Your task to perform on an android device: Open Chrome and go to settings Image 0: 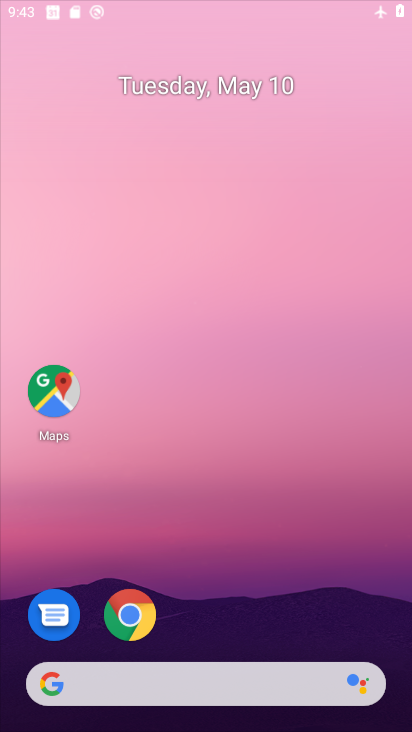
Step 0: drag from (195, 574) to (222, 216)
Your task to perform on an android device: Open Chrome and go to settings Image 1: 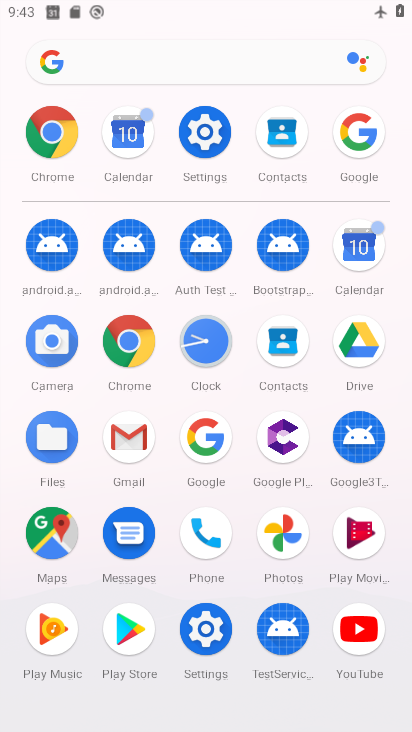
Step 1: drag from (167, 634) to (156, 379)
Your task to perform on an android device: Open Chrome and go to settings Image 2: 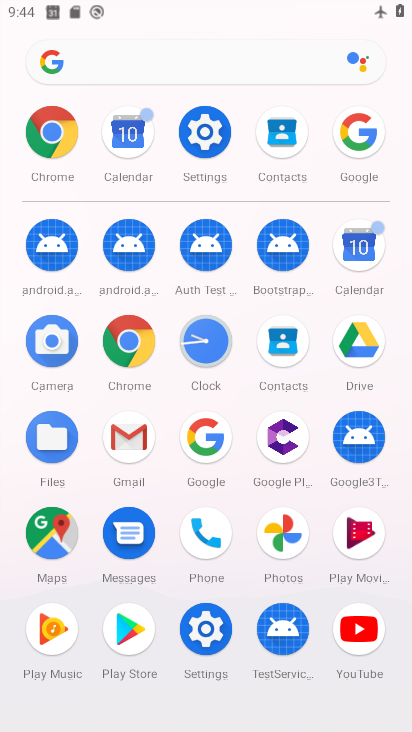
Step 2: click (125, 436)
Your task to perform on an android device: Open Chrome and go to settings Image 3: 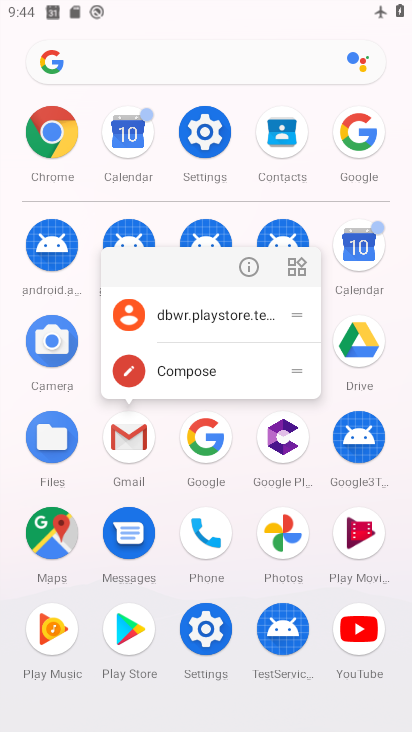
Step 3: click (45, 129)
Your task to perform on an android device: Open Chrome and go to settings Image 4: 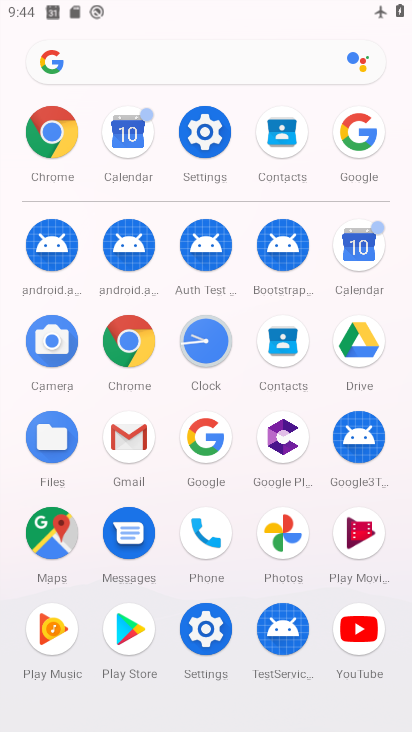
Step 4: click (200, 156)
Your task to perform on an android device: Open Chrome and go to settings Image 5: 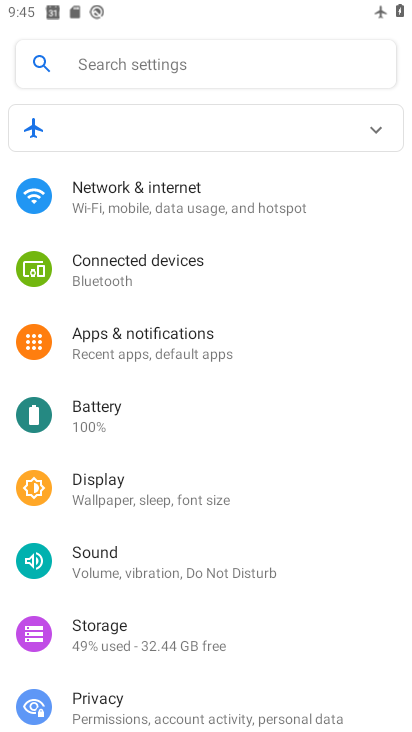
Step 5: drag from (192, 571) to (260, 216)
Your task to perform on an android device: Open Chrome and go to settings Image 6: 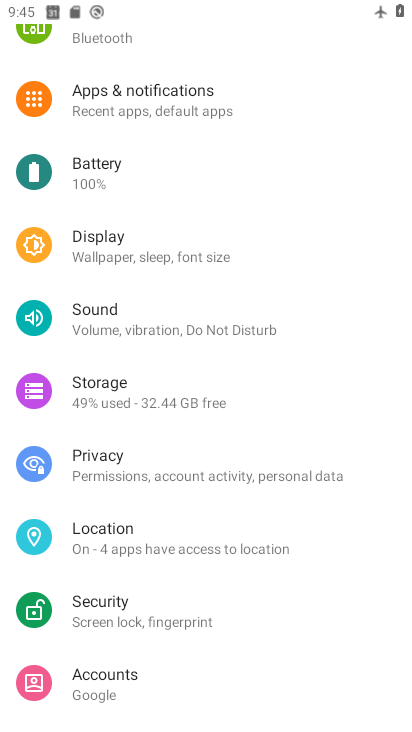
Step 6: press back button
Your task to perform on an android device: Open Chrome and go to settings Image 7: 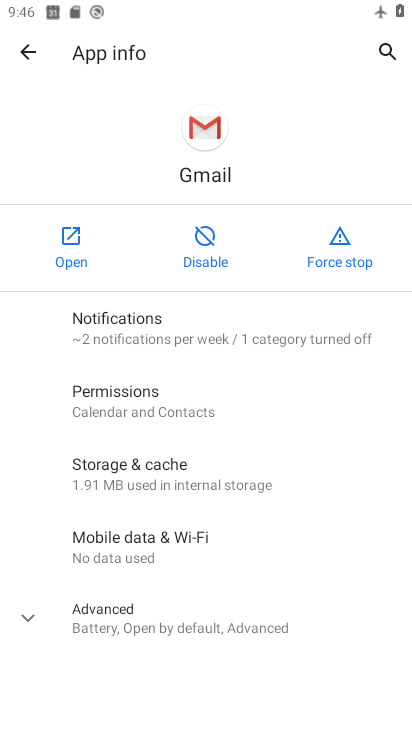
Step 7: press back button
Your task to perform on an android device: Open Chrome and go to settings Image 8: 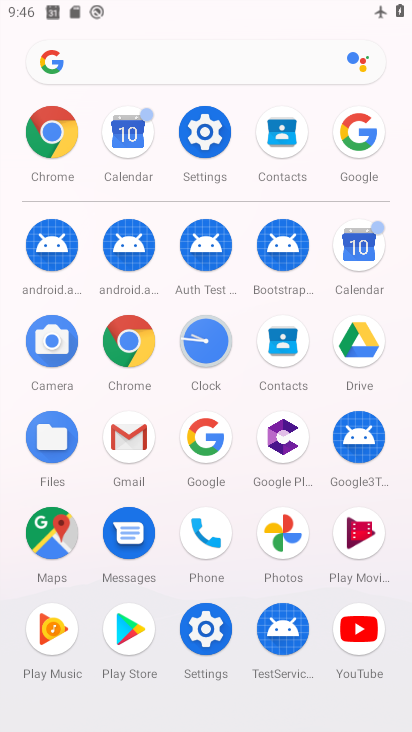
Step 8: click (33, 131)
Your task to perform on an android device: Open Chrome and go to settings Image 9: 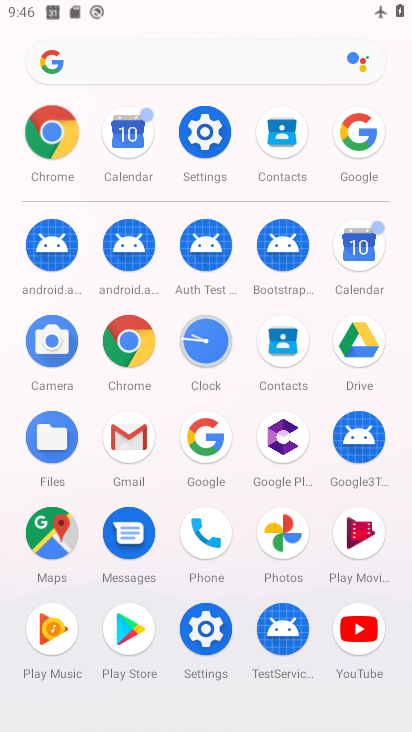
Step 9: click (32, 130)
Your task to perform on an android device: Open Chrome and go to settings Image 10: 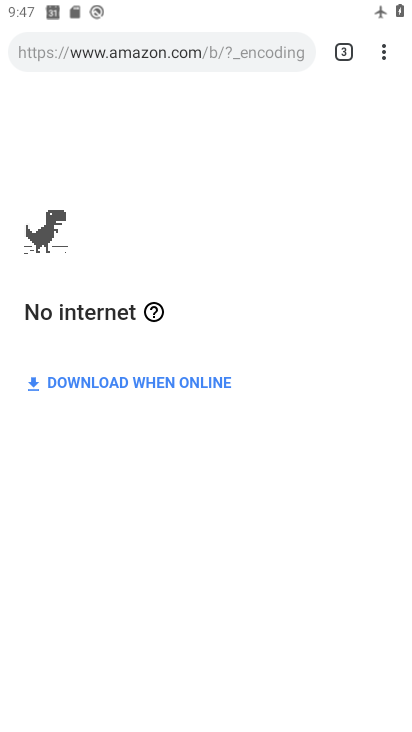
Step 10: drag from (285, 489) to (367, 249)
Your task to perform on an android device: Open Chrome and go to settings Image 11: 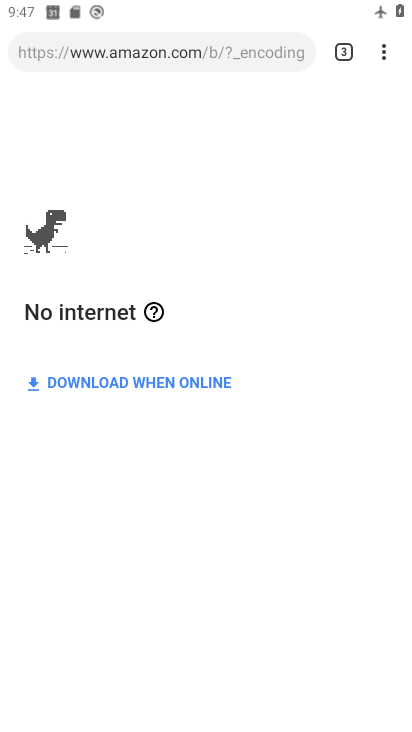
Step 11: click (391, 53)
Your task to perform on an android device: Open Chrome and go to settings Image 12: 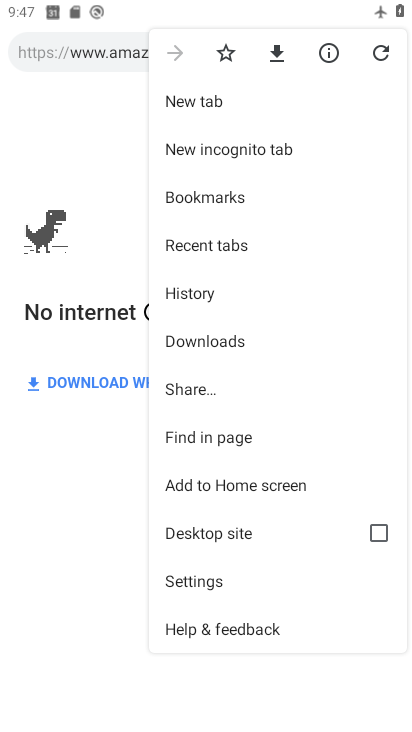
Step 12: click (232, 584)
Your task to perform on an android device: Open Chrome and go to settings Image 13: 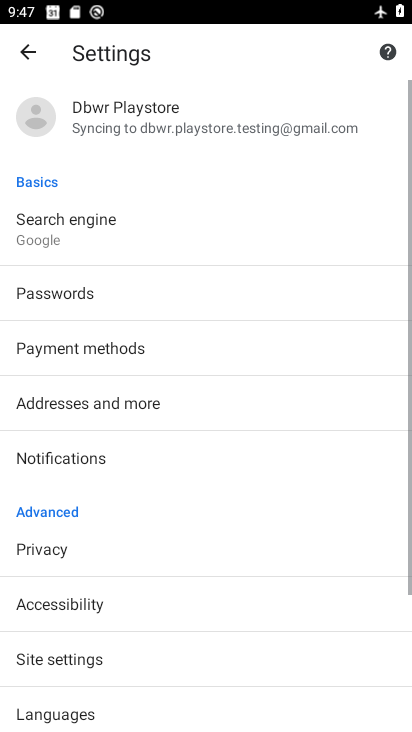
Step 13: task complete